Your task to perform on an android device: turn on improve location accuracy Image 0: 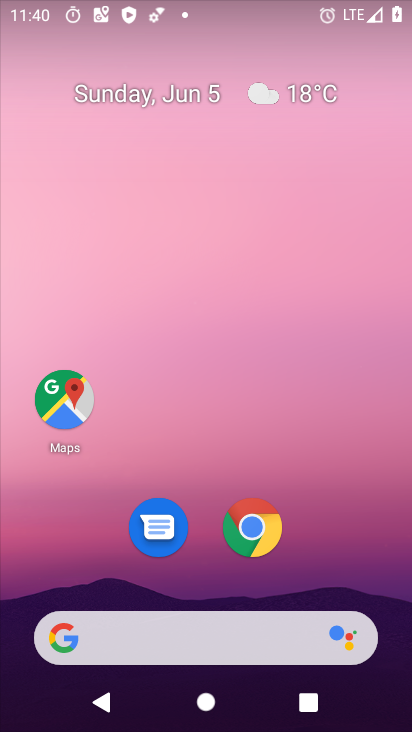
Step 0: drag from (368, 548) to (292, 0)
Your task to perform on an android device: turn on improve location accuracy Image 1: 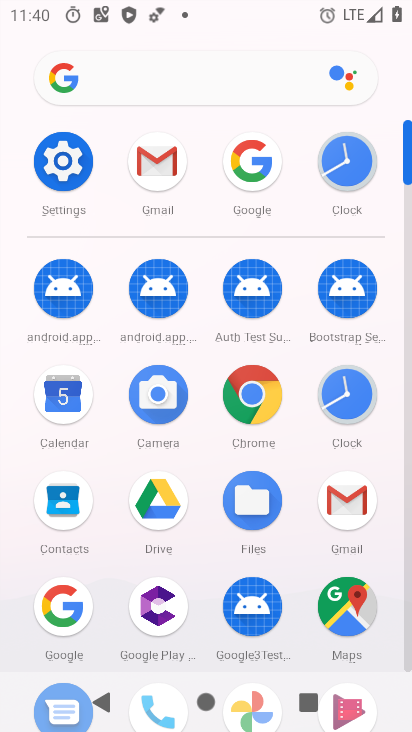
Step 1: click (78, 163)
Your task to perform on an android device: turn on improve location accuracy Image 2: 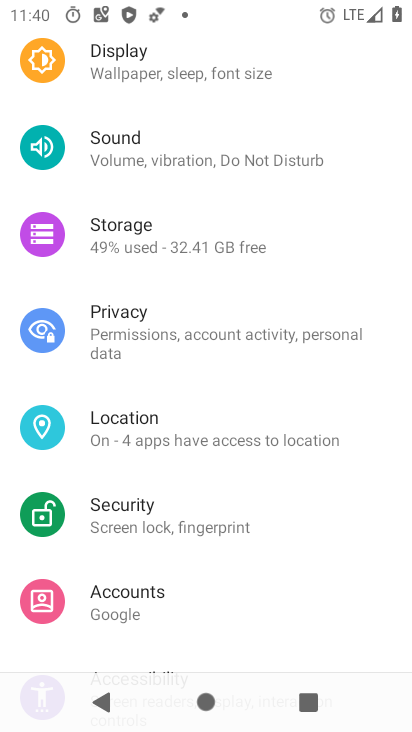
Step 2: click (177, 431)
Your task to perform on an android device: turn on improve location accuracy Image 3: 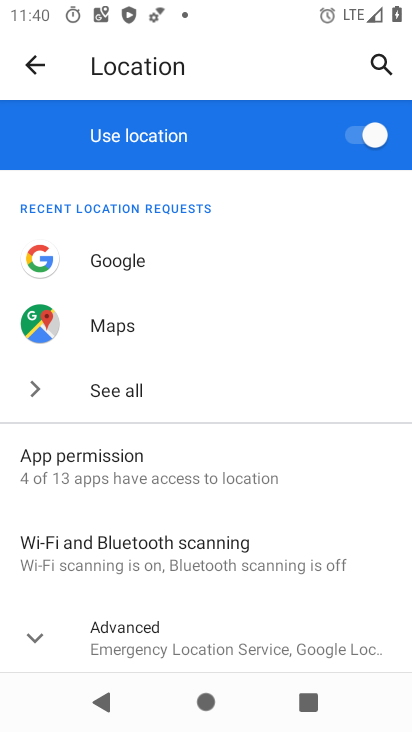
Step 3: click (166, 649)
Your task to perform on an android device: turn on improve location accuracy Image 4: 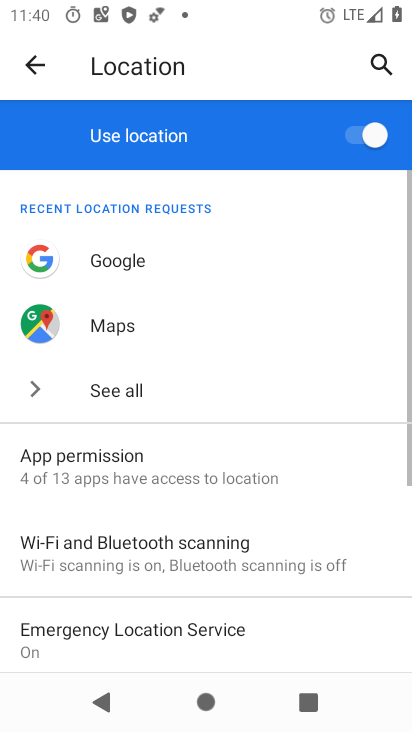
Step 4: drag from (232, 613) to (299, 135)
Your task to perform on an android device: turn on improve location accuracy Image 5: 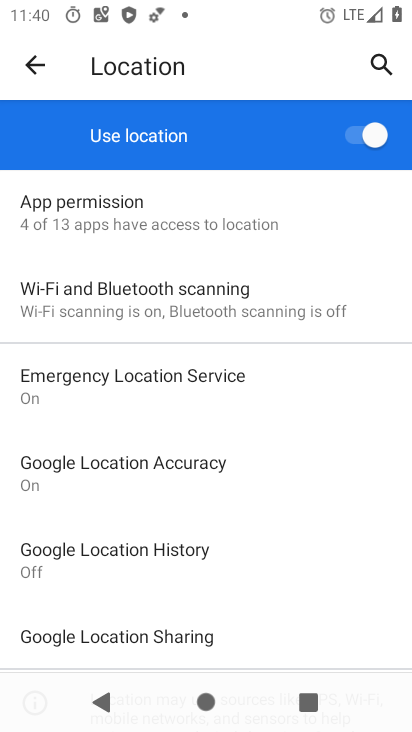
Step 5: click (211, 453)
Your task to perform on an android device: turn on improve location accuracy Image 6: 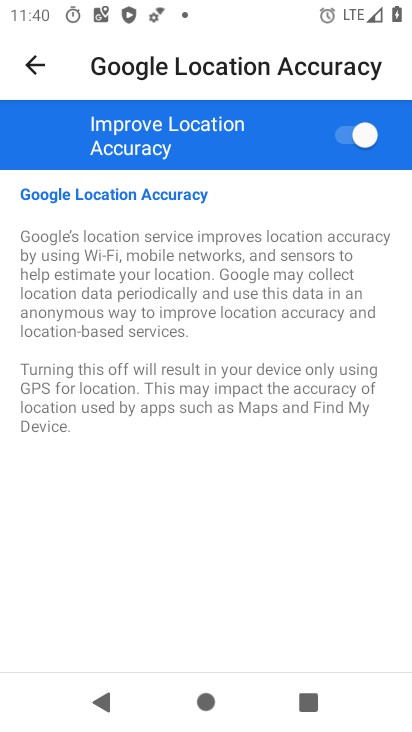
Step 6: task complete